Your task to perform on an android device: check android version Image 0: 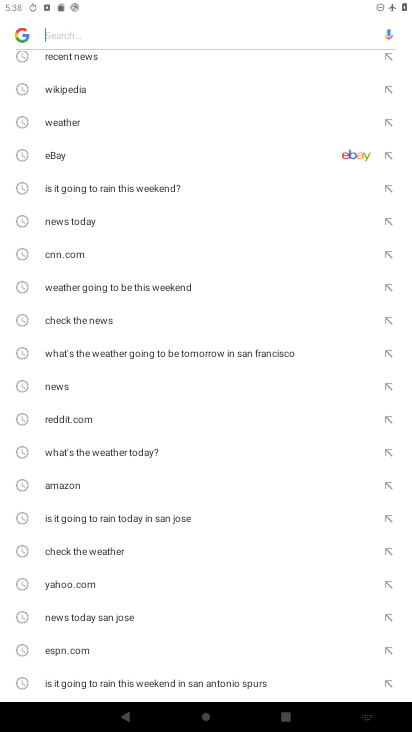
Step 0: press home button
Your task to perform on an android device: check android version Image 1: 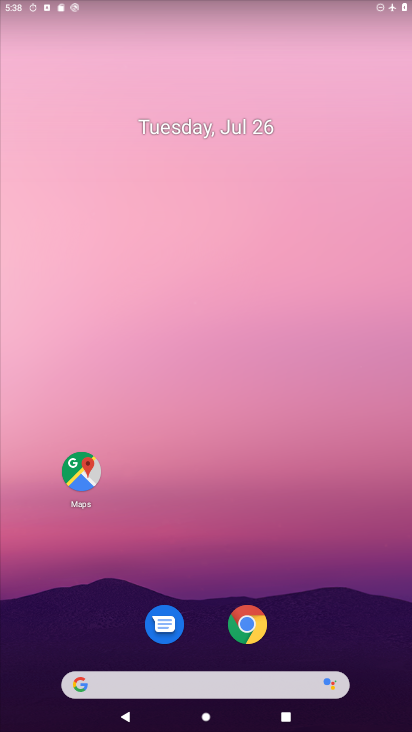
Step 1: drag from (275, 675) to (318, 0)
Your task to perform on an android device: check android version Image 2: 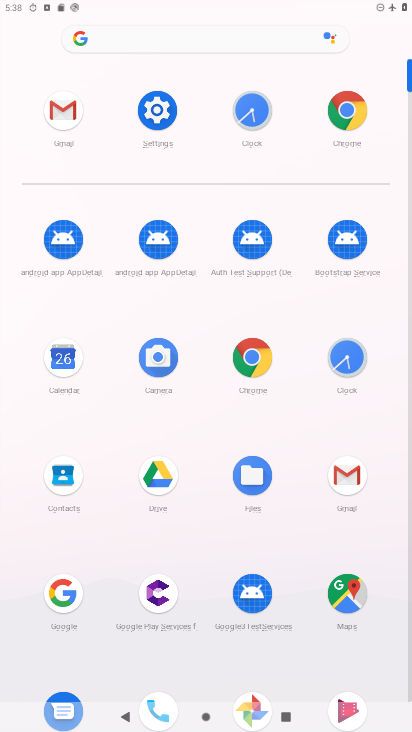
Step 2: click (158, 113)
Your task to perform on an android device: check android version Image 3: 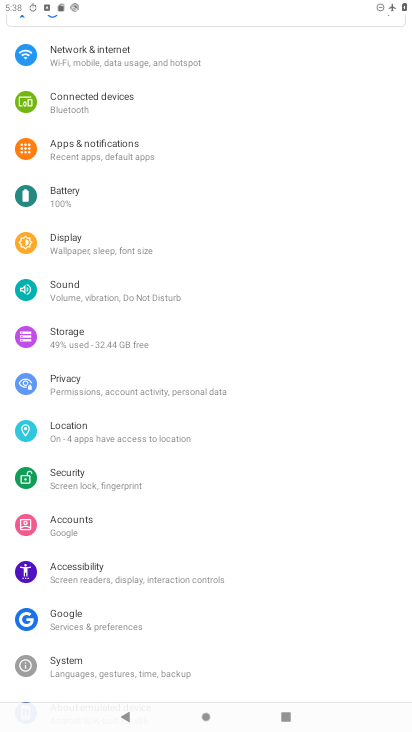
Step 3: drag from (177, 596) to (183, 162)
Your task to perform on an android device: check android version Image 4: 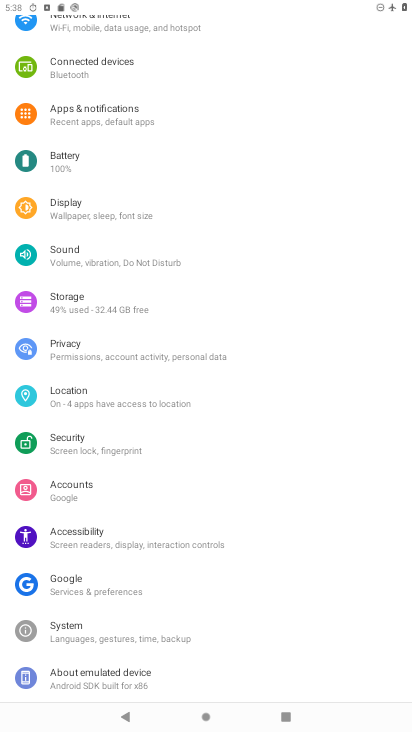
Step 4: click (97, 675)
Your task to perform on an android device: check android version Image 5: 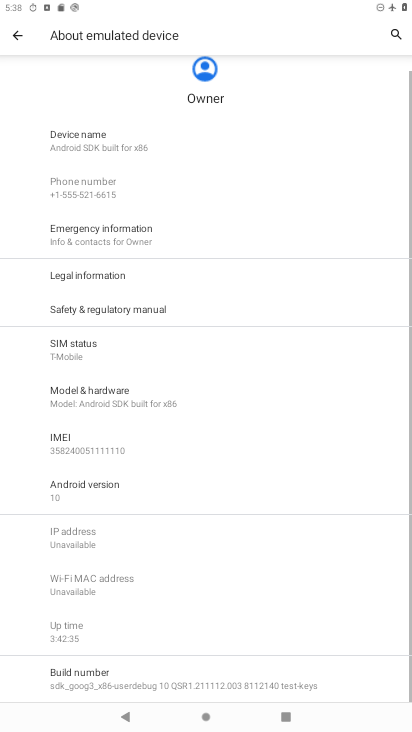
Step 5: click (94, 493)
Your task to perform on an android device: check android version Image 6: 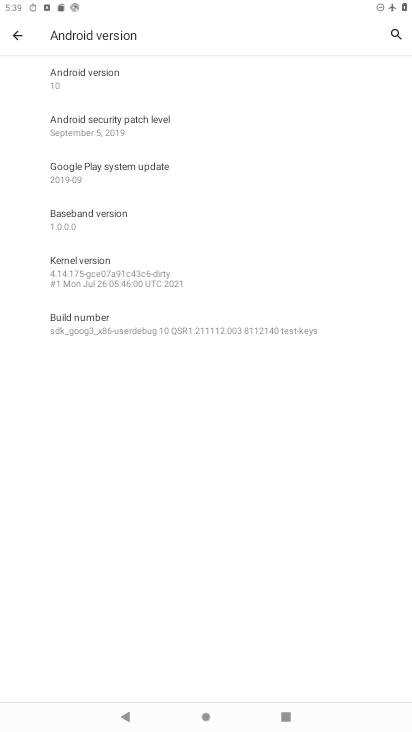
Step 6: task complete